Your task to perform on an android device: install app "Indeed Job Search" Image 0: 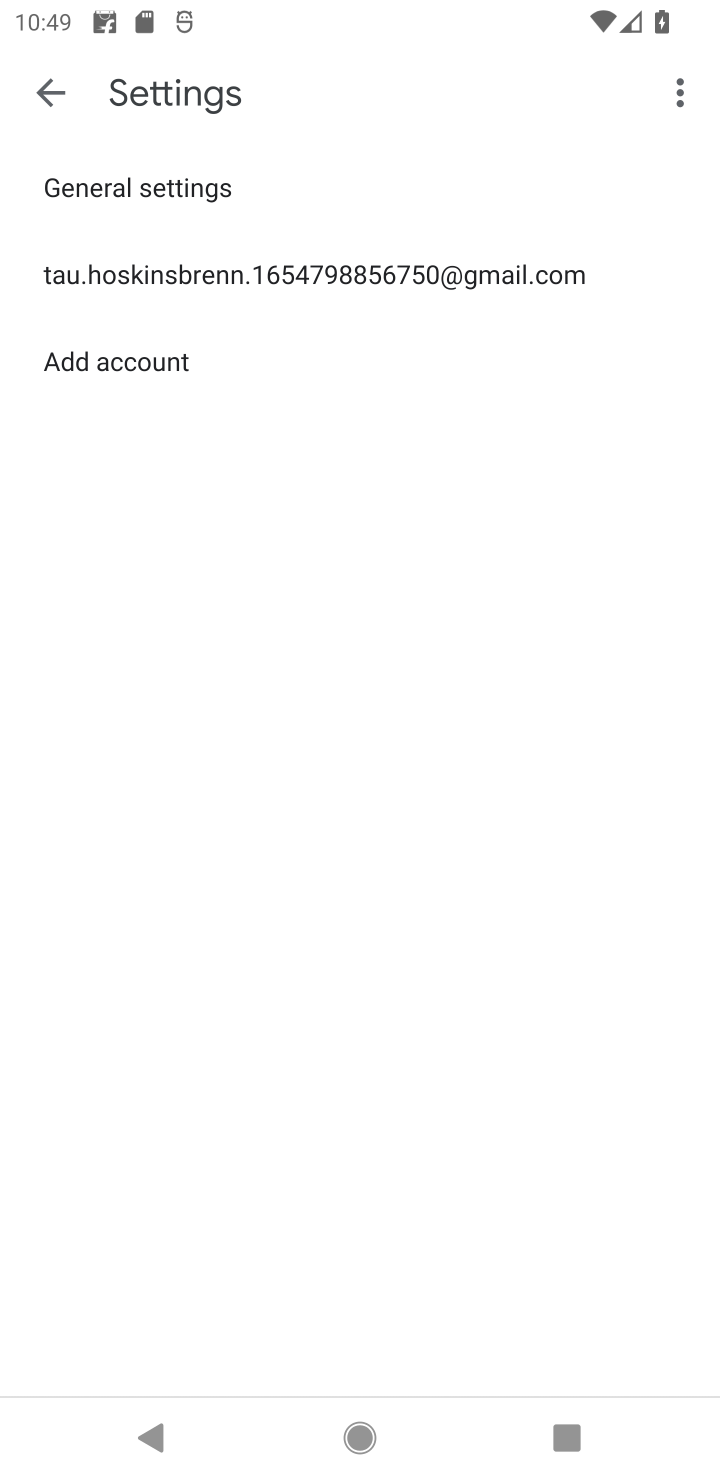
Step 0: press home button
Your task to perform on an android device: install app "Indeed Job Search" Image 1: 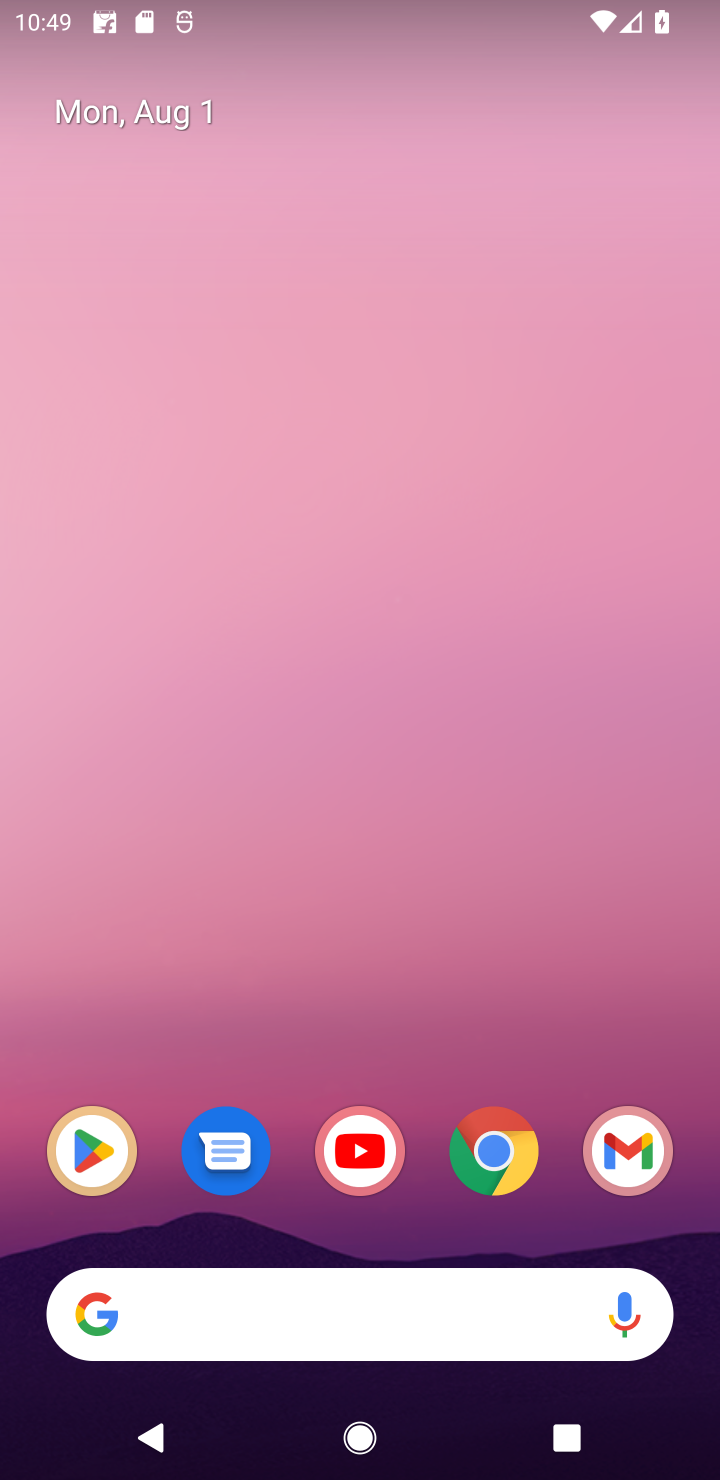
Step 1: click (100, 1137)
Your task to perform on an android device: install app "Indeed Job Search" Image 2: 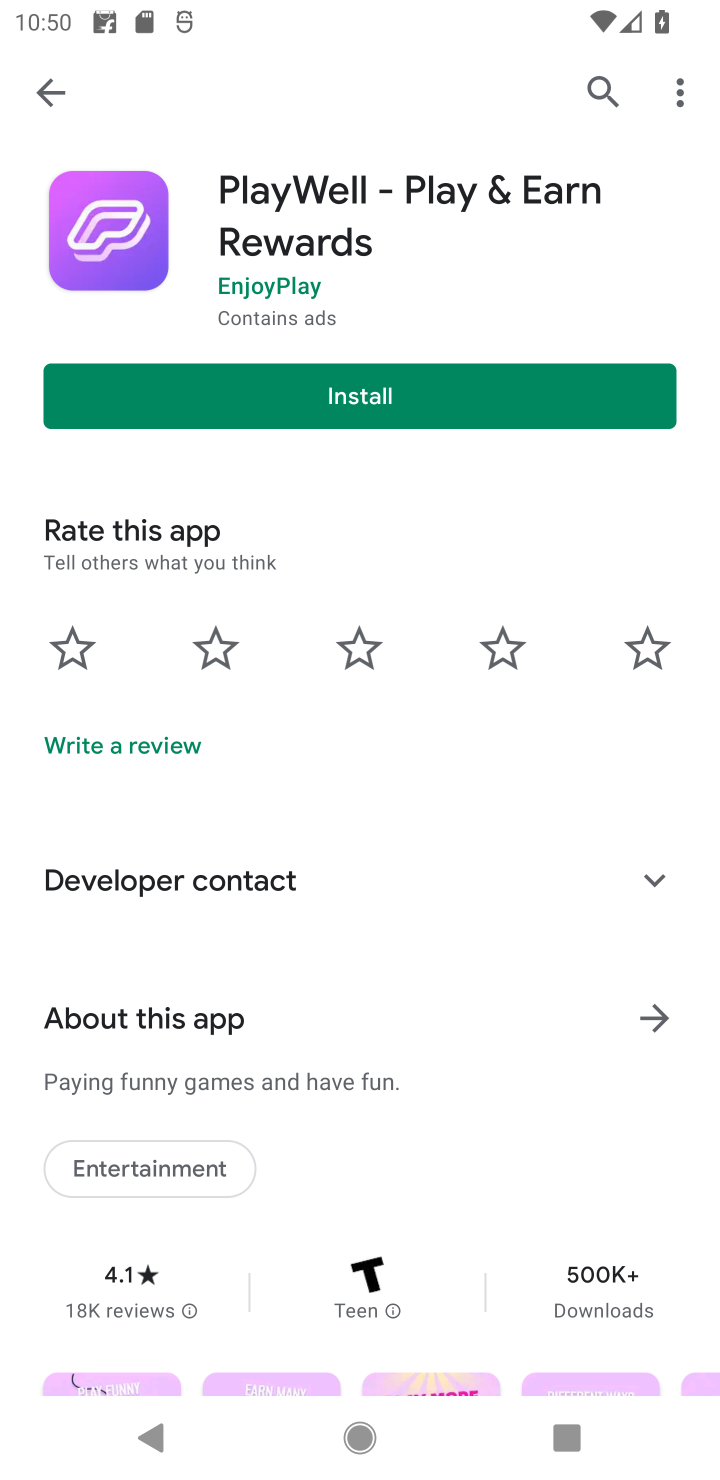
Step 2: click (325, 406)
Your task to perform on an android device: install app "Indeed Job Search" Image 3: 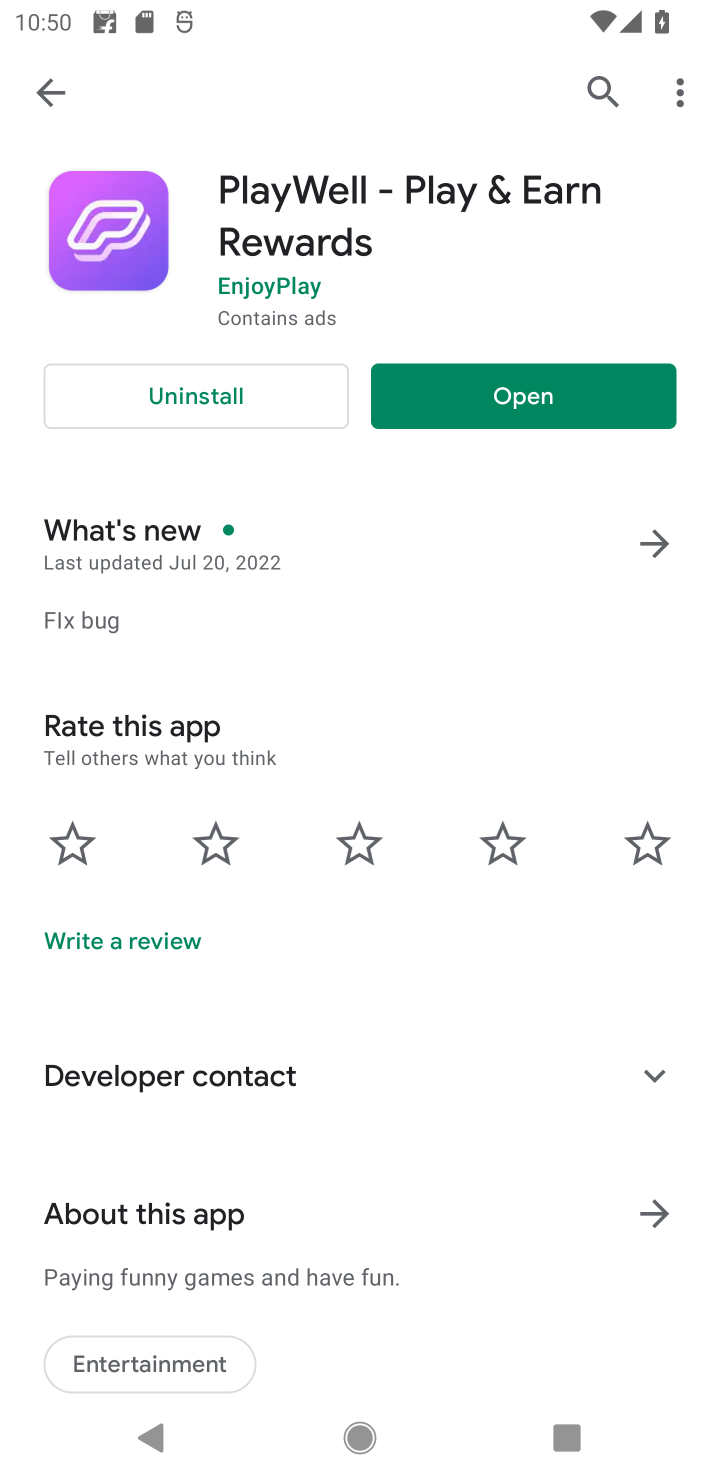
Step 3: task complete